Your task to perform on an android device: turn on showing notifications on the lock screen Image 0: 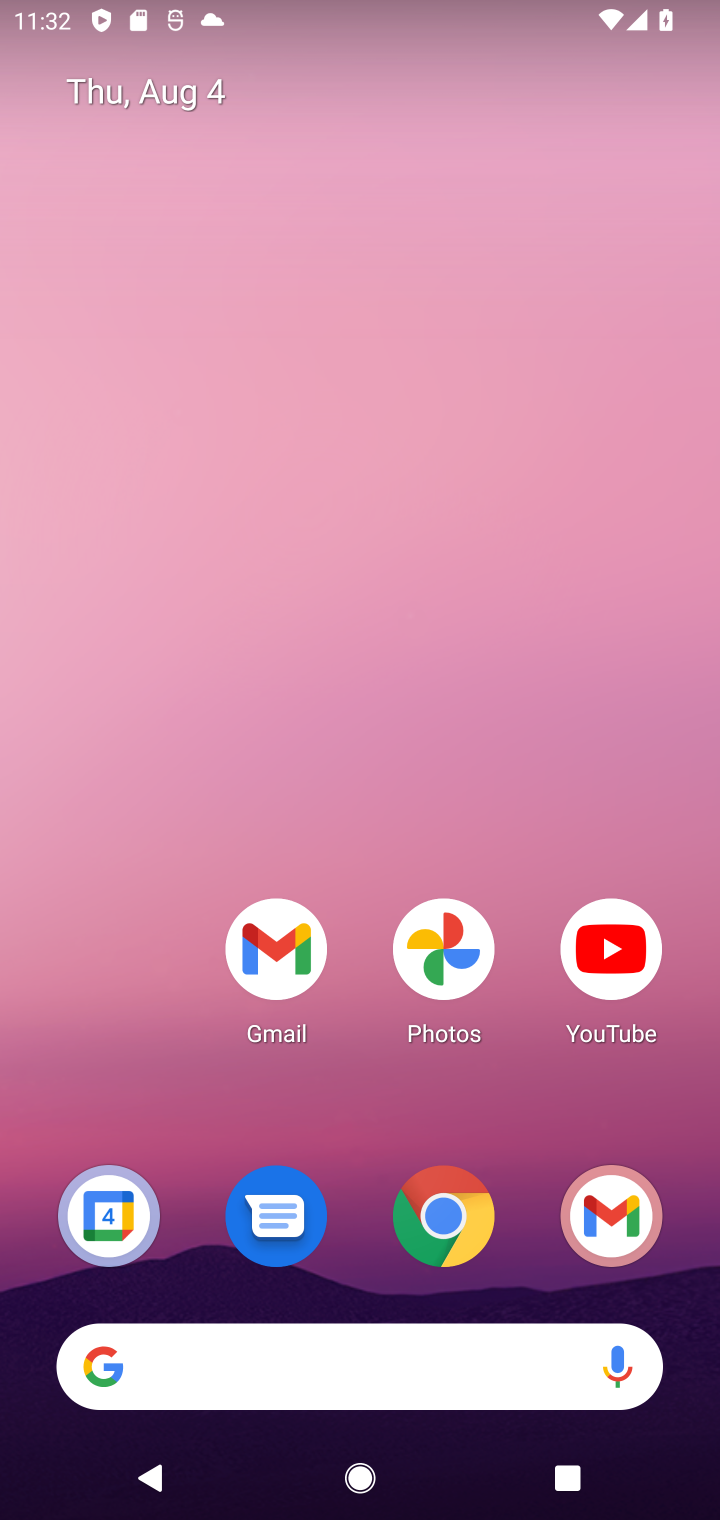
Step 0: drag from (257, 1374) to (400, 261)
Your task to perform on an android device: turn on showing notifications on the lock screen Image 1: 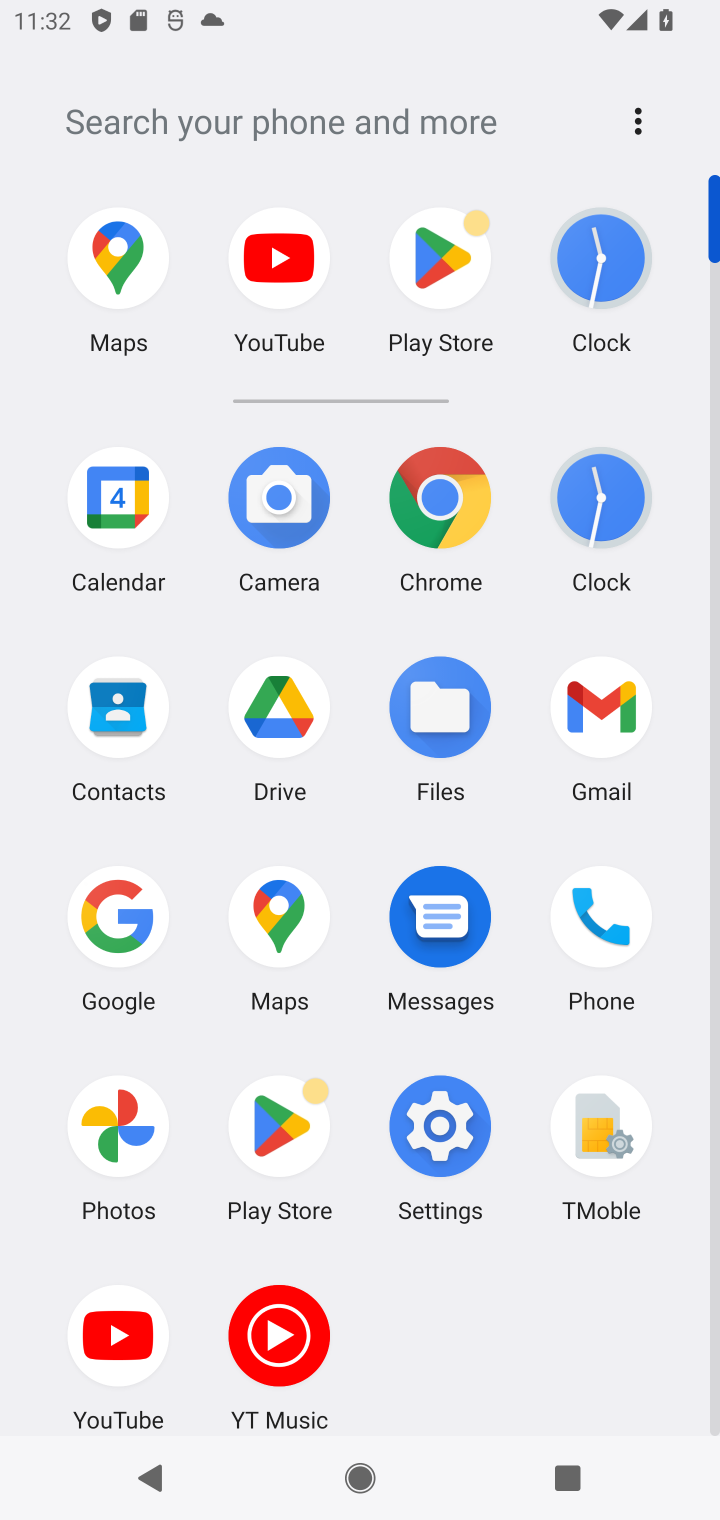
Step 1: click (438, 1127)
Your task to perform on an android device: turn on showing notifications on the lock screen Image 2: 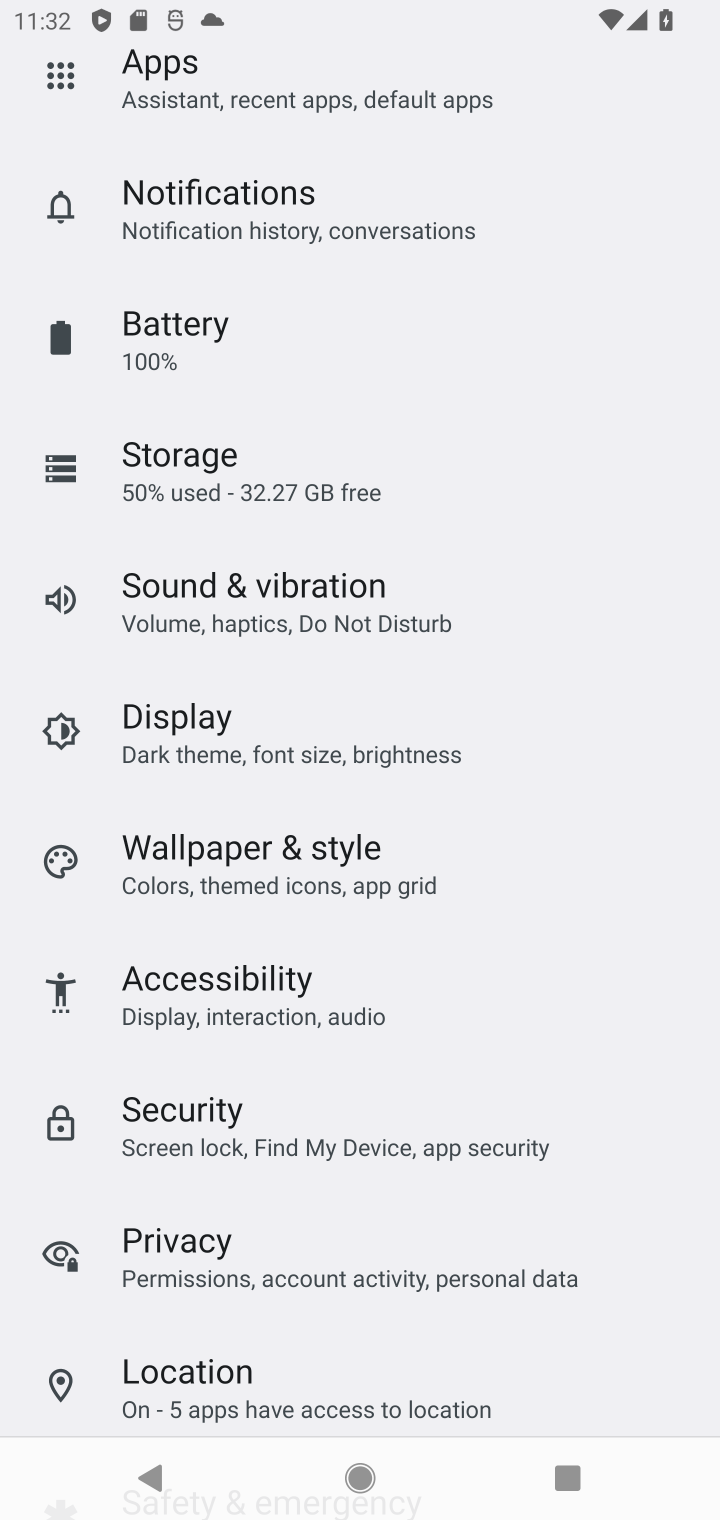
Step 2: click (327, 228)
Your task to perform on an android device: turn on showing notifications on the lock screen Image 3: 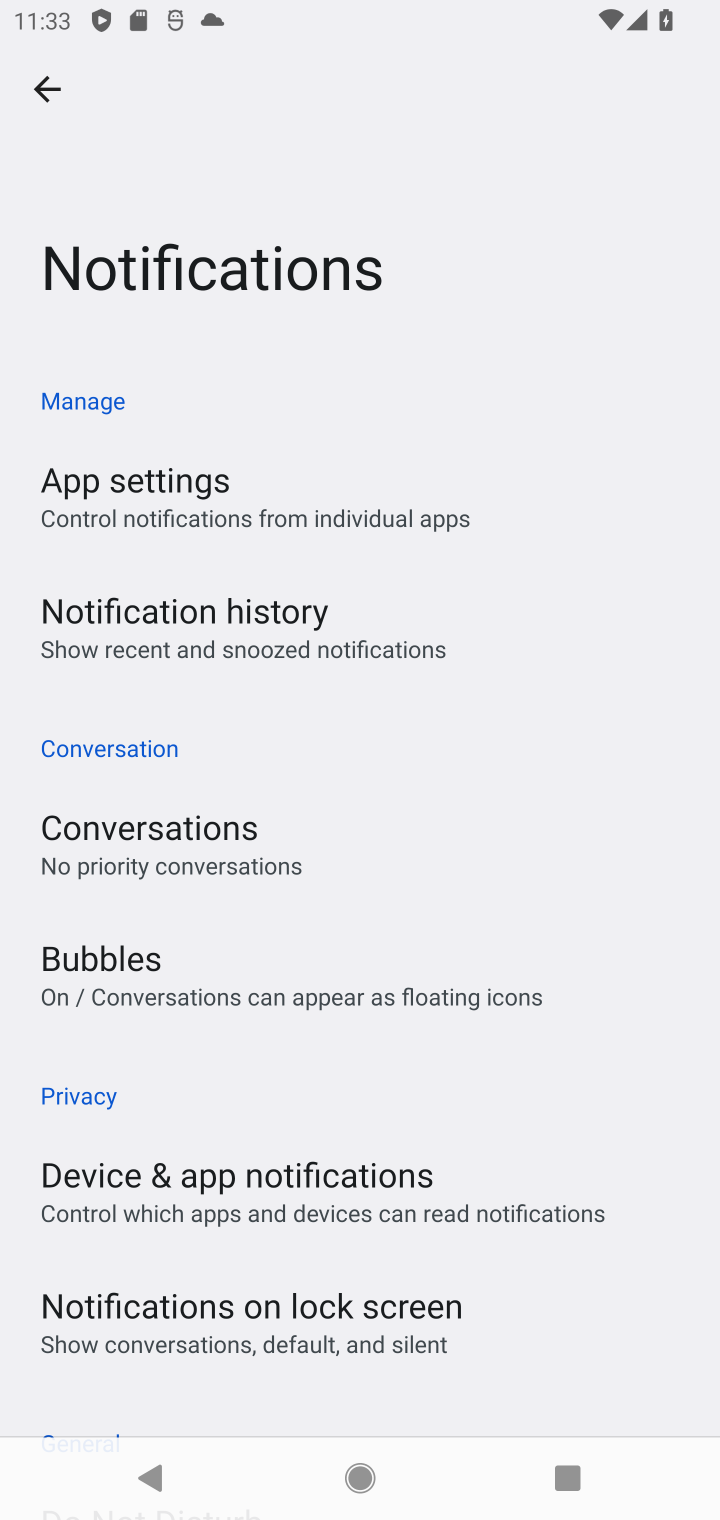
Step 3: click (230, 1324)
Your task to perform on an android device: turn on showing notifications on the lock screen Image 4: 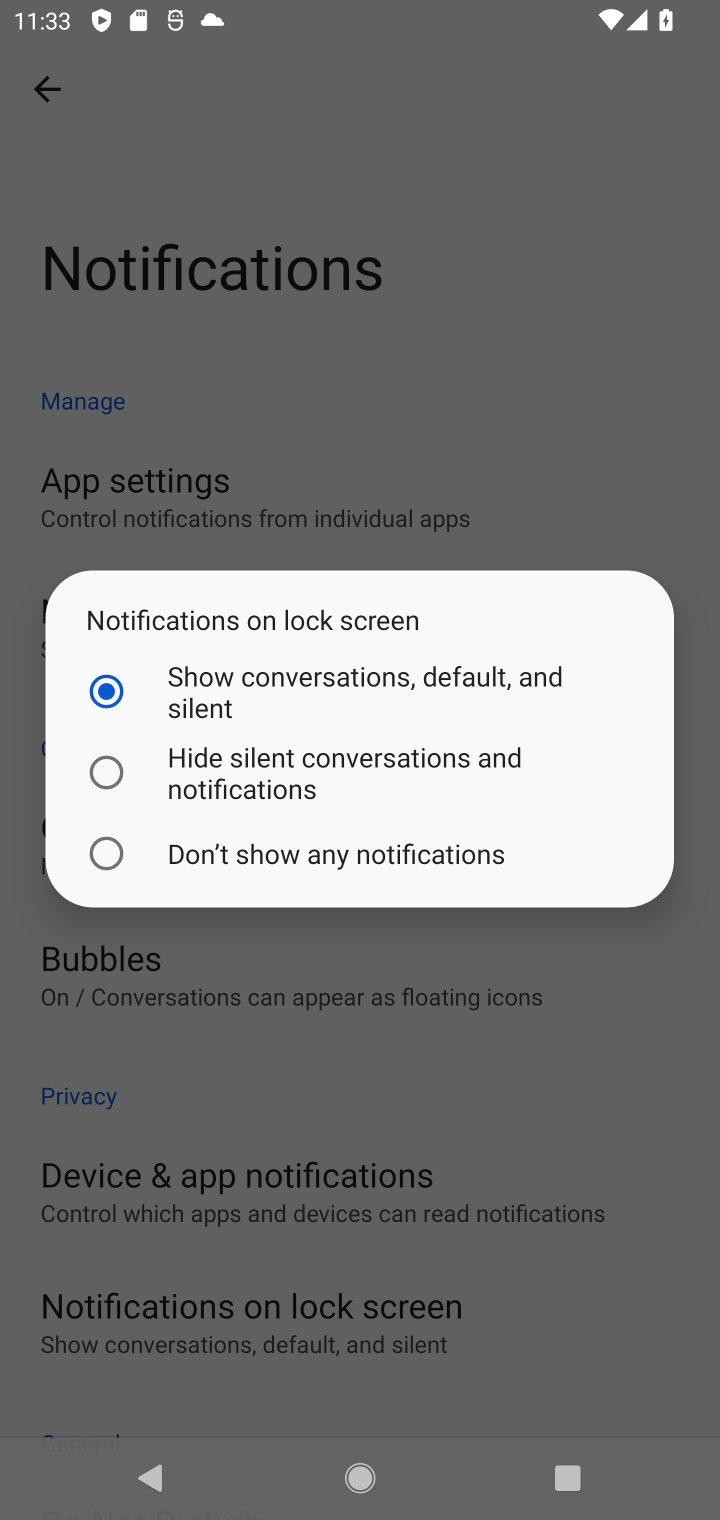
Step 4: click (100, 696)
Your task to perform on an android device: turn on showing notifications on the lock screen Image 5: 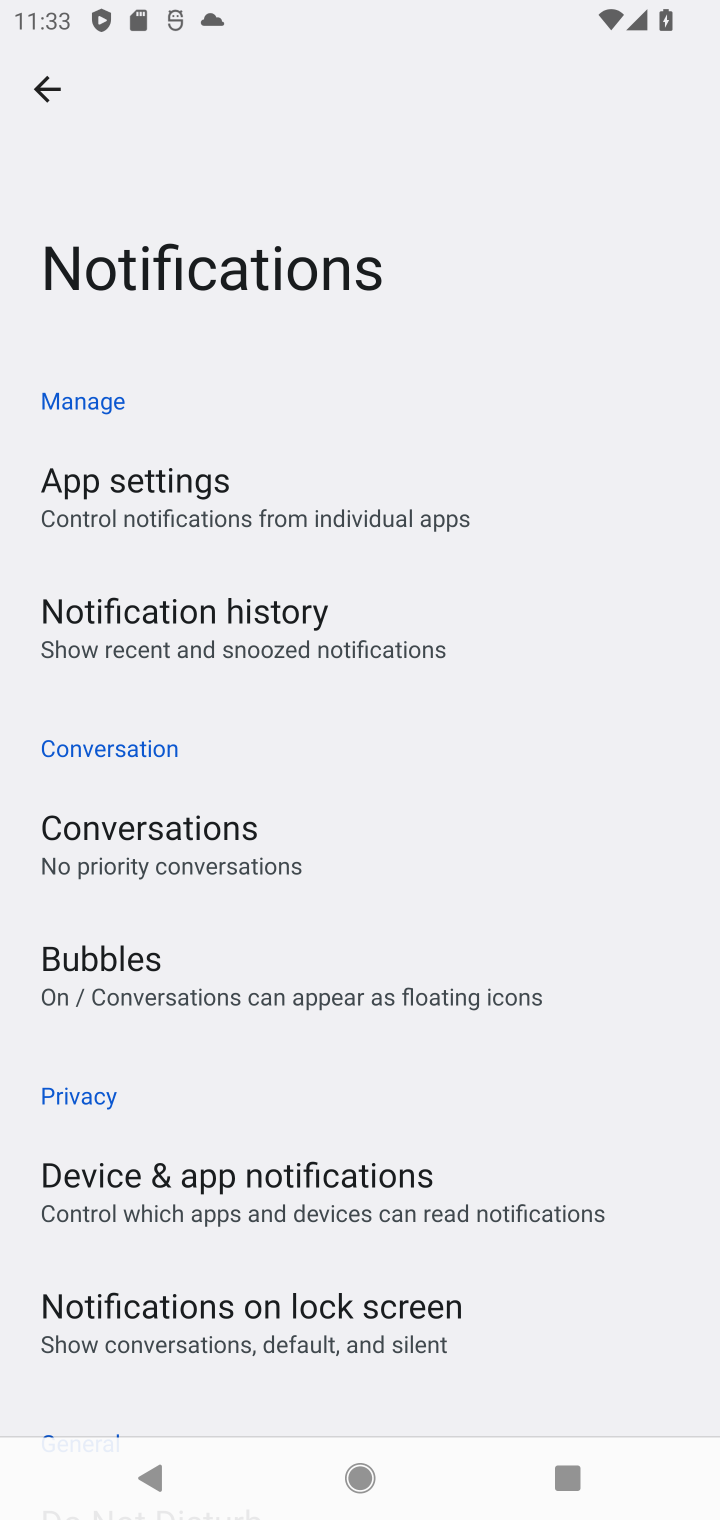
Step 5: task complete